Your task to perform on an android device: turn off wifi Image 0: 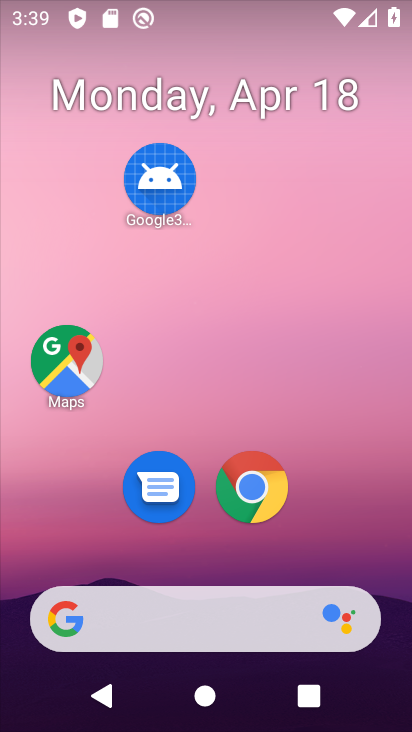
Step 0: click (218, 144)
Your task to perform on an android device: turn off wifi Image 1: 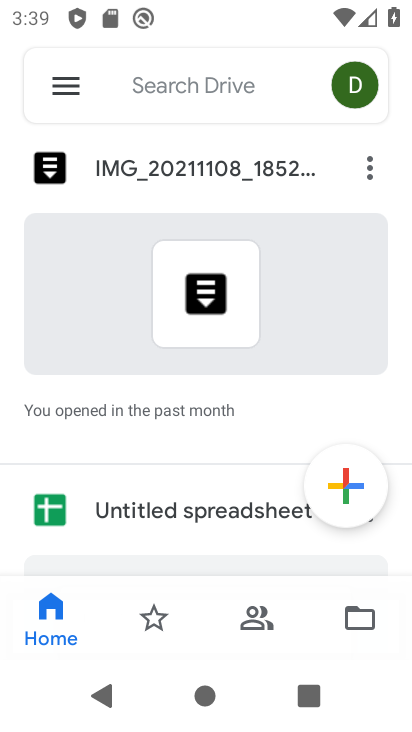
Step 1: press home button
Your task to perform on an android device: turn off wifi Image 2: 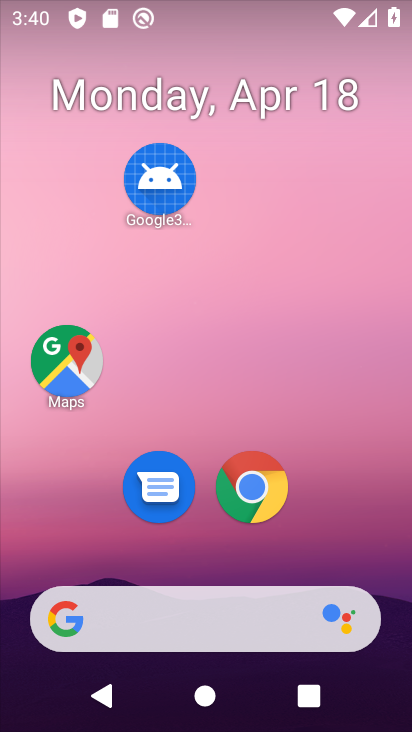
Step 2: drag from (180, 588) to (135, 0)
Your task to perform on an android device: turn off wifi Image 3: 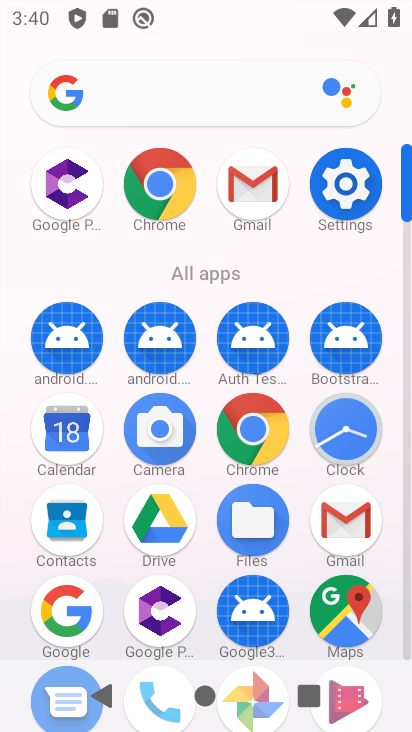
Step 3: click (348, 196)
Your task to perform on an android device: turn off wifi Image 4: 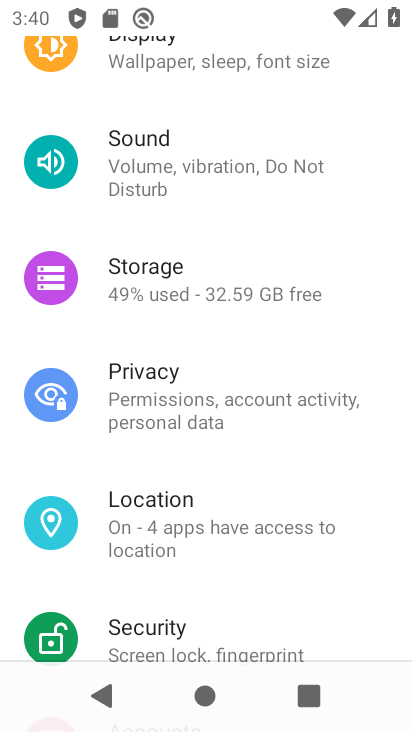
Step 4: drag from (307, 177) to (290, 269)
Your task to perform on an android device: turn off wifi Image 5: 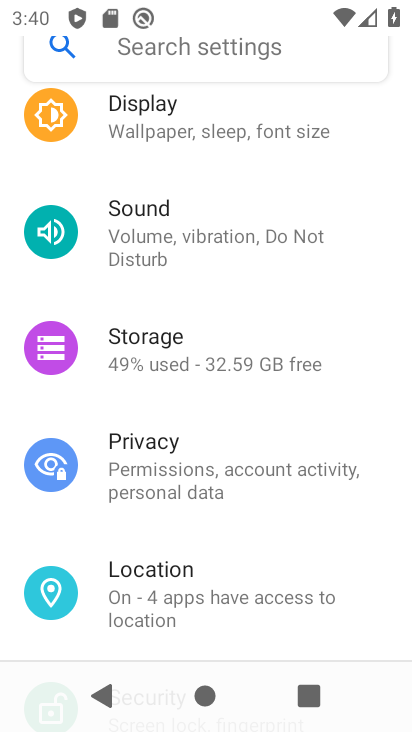
Step 5: drag from (183, 203) to (156, 557)
Your task to perform on an android device: turn off wifi Image 6: 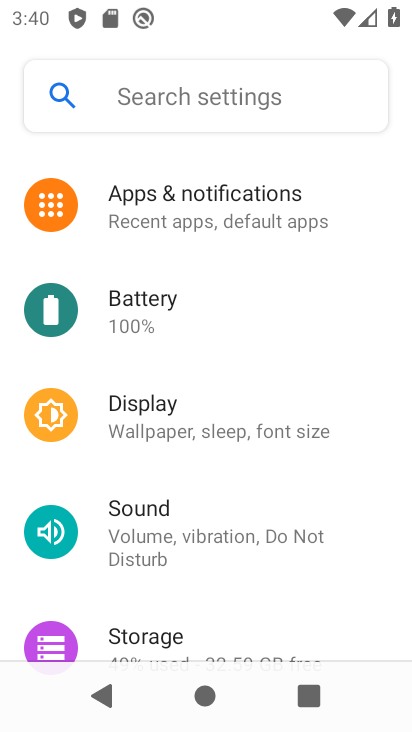
Step 6: drag from (131, 220) to (127, 566)
Your task to perform on an android device: turn off wifi Image 7: 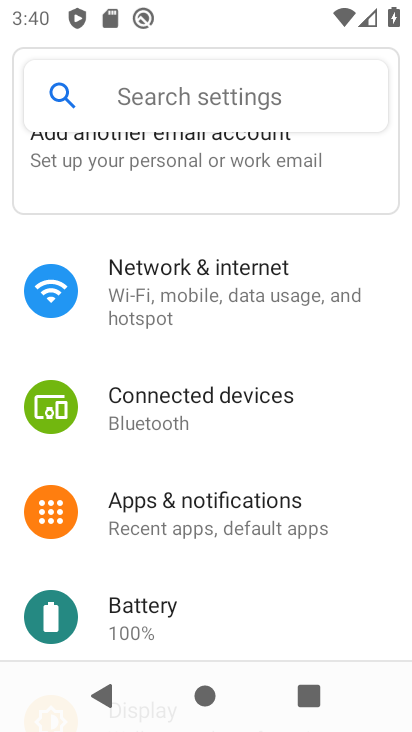
Step 7: click (144, 284)
Your task to perform on an android device: turn off wifi Image 8: 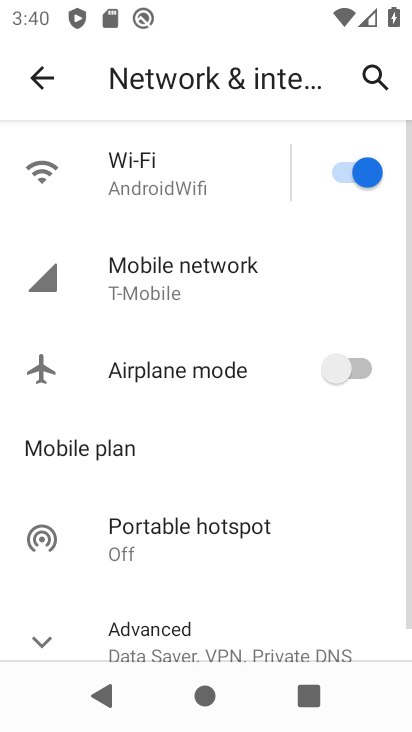
Step 8: click (354, 181)
Your task to perform on an android device: turn off wifi Image 9: 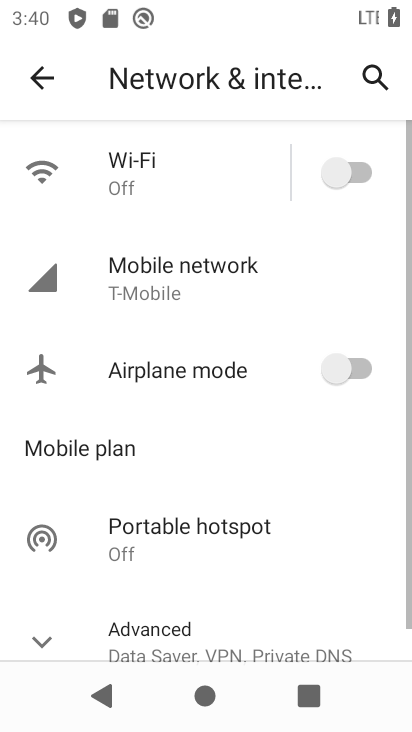
Step 9: task complete